Your task to perform on an android device: choose inbox layout in the gmail app Image 0: 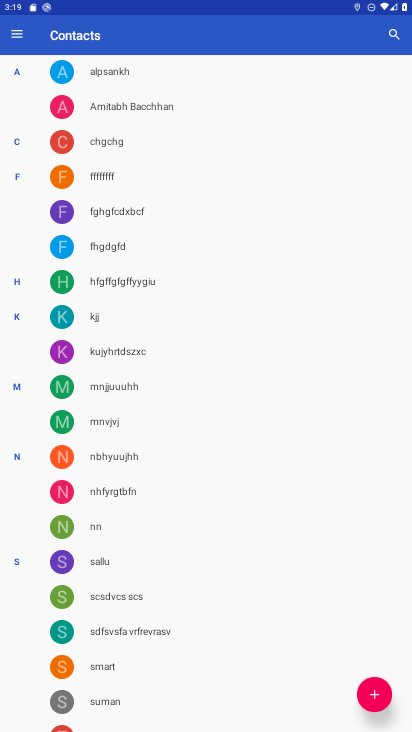
Step 0: press home button
Your task to perform on an android device: choose inbox layout in the gmail app Image 1: 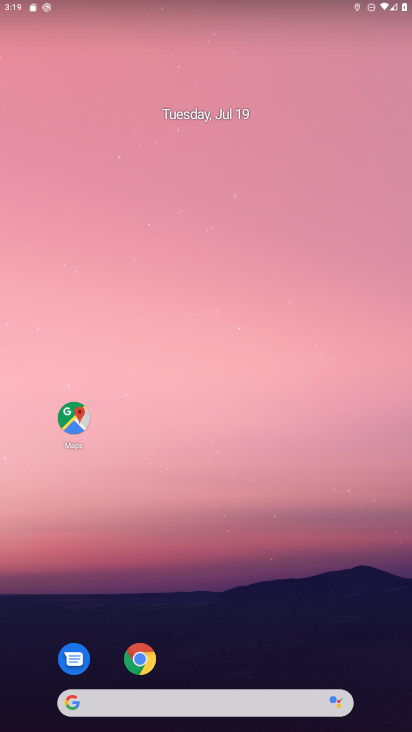
Step 1: drag from (240, 608) to (244, 11)
Your task to perform on an android device: choose inbox layout in the gmail app Image 2: 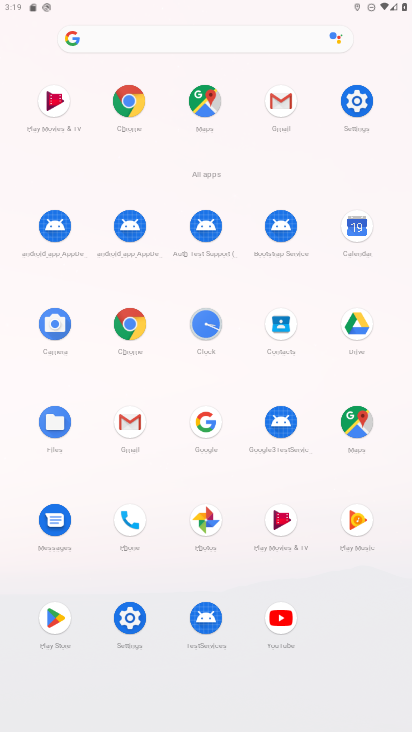
Step 2: click (289, 96)
Your task to perform on an android device: choose inbox layout in the gmail app Image 3: 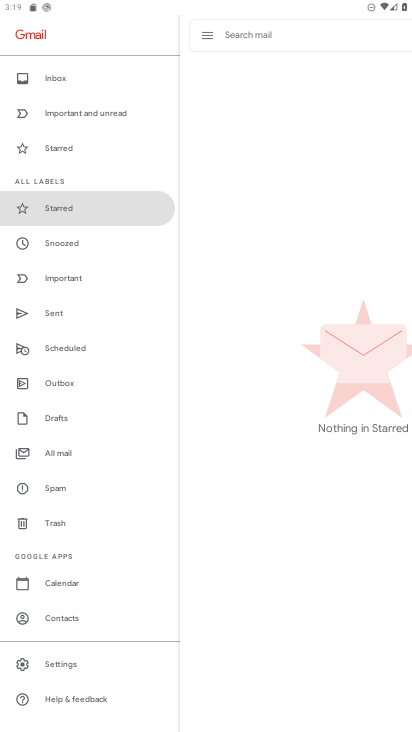
Step 3: click (79, 662)
Your task to perform on an android device: choose inbox layout in the gmail app Image 4: 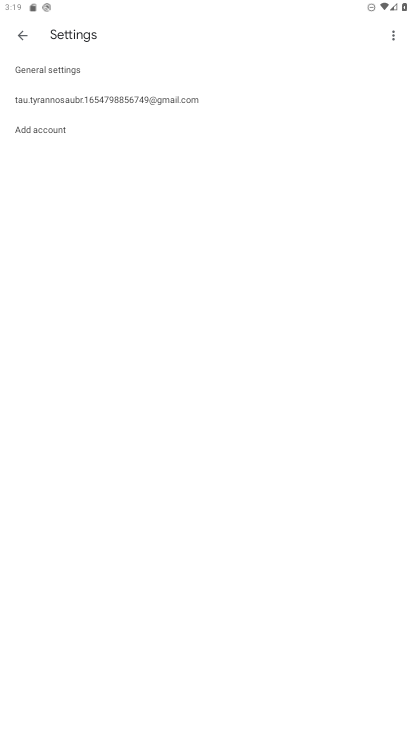
Step 4: click (127, 92)
Your task to perform on an android device: choose inbox layout in the gmail app Image 5: 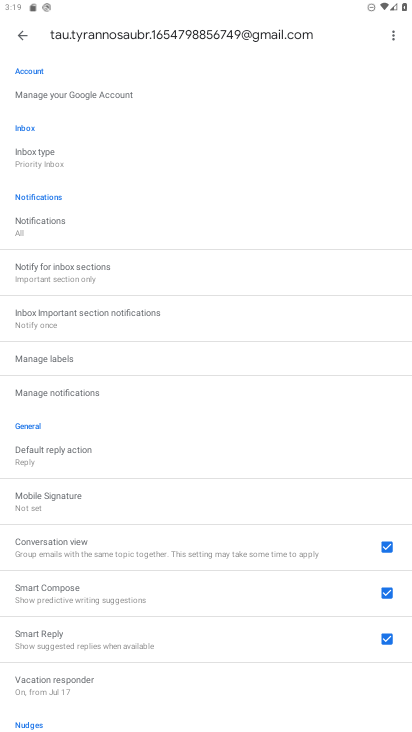
Step 5: click (63, 161)
Your task to perform on an android device: choose inbox layout in the gmail app Image 6: 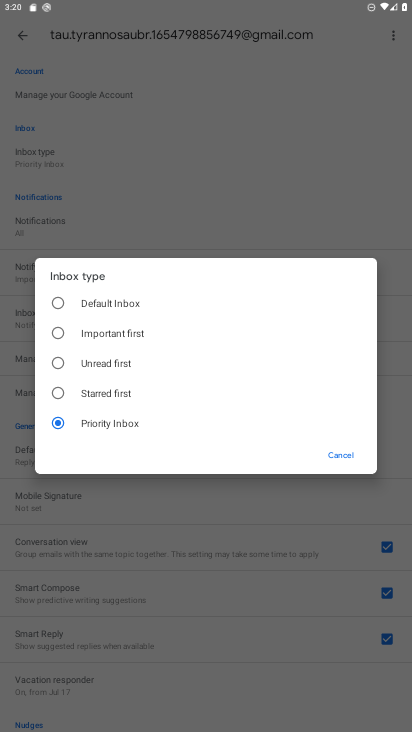
Step 6: click (71, 312)
Your task to perform on an android device: choose inbox layout in the gmail app Image 7: 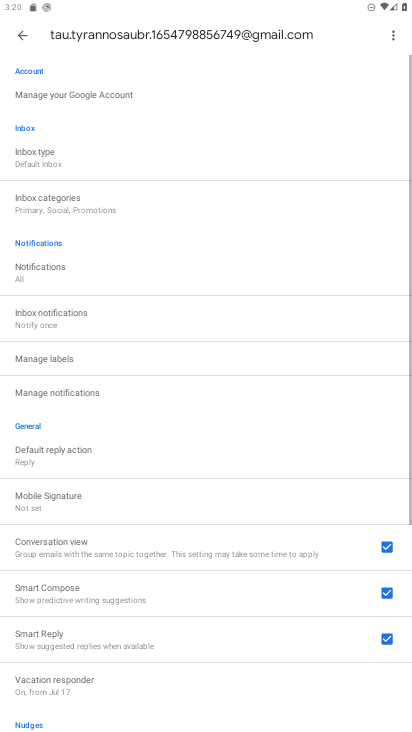
Step 7: task complete